Your task to perform on an android device: Clear the cart on newegg. Search for "bose soundlink mini" on newegg, select the first entry, add it to the cart, then select checkout. Image 0: 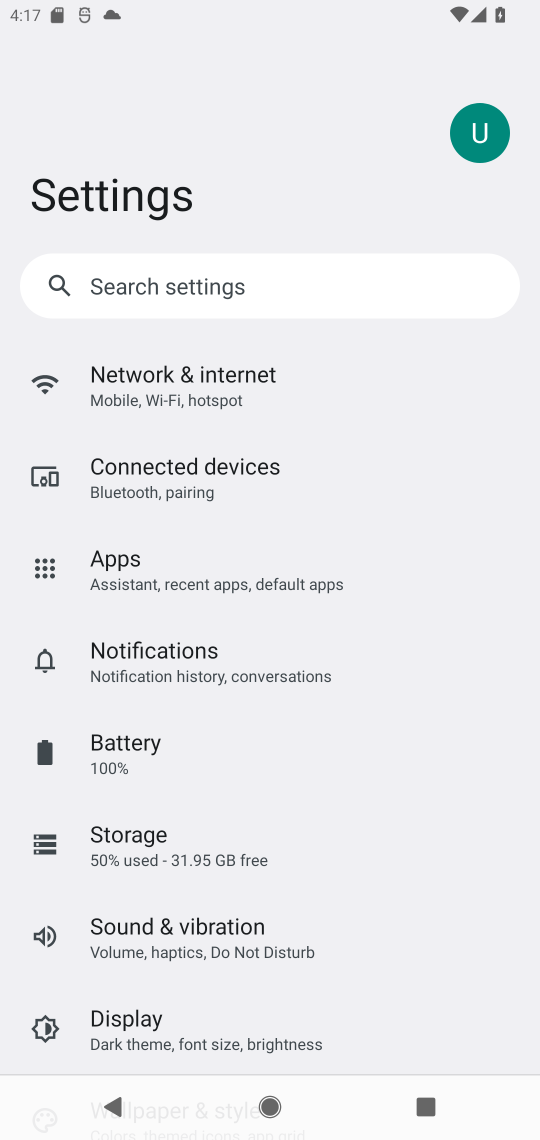
Step 0: press home button
Your task to perform on an android device: Clear the cart on newegg. Search for "bose soundlink mini" on newegg, select the first entry, add it to the cart, then select checkout. Image 1: 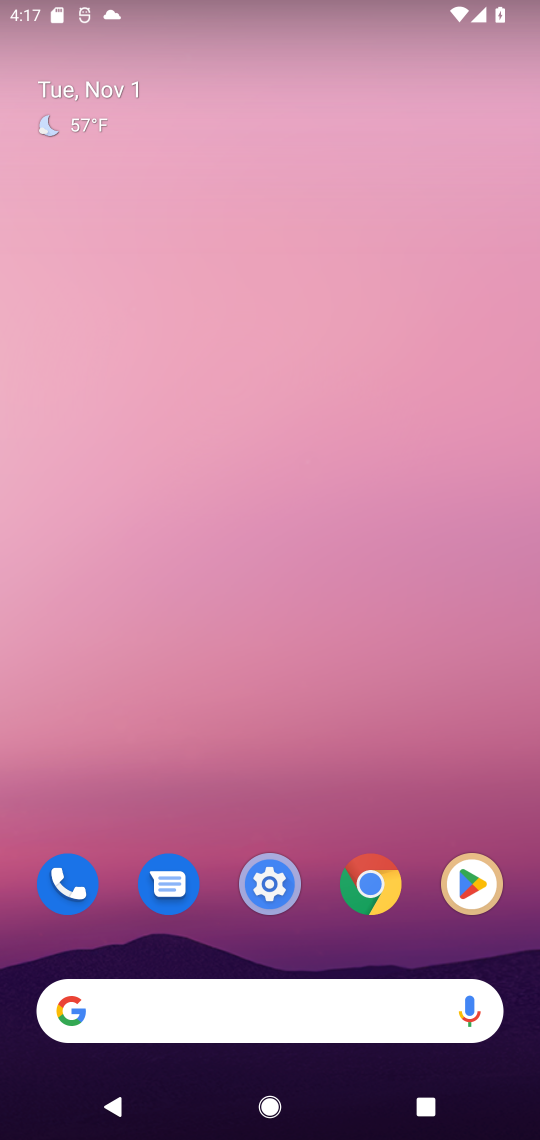
Step 1: click (105, 1010)
Your task to perform on an android device: Clear the cart on newegg. Search for "bose soundlink mini" on newegg, select the first entry, add it to the cart, then select checkout. Image 2: 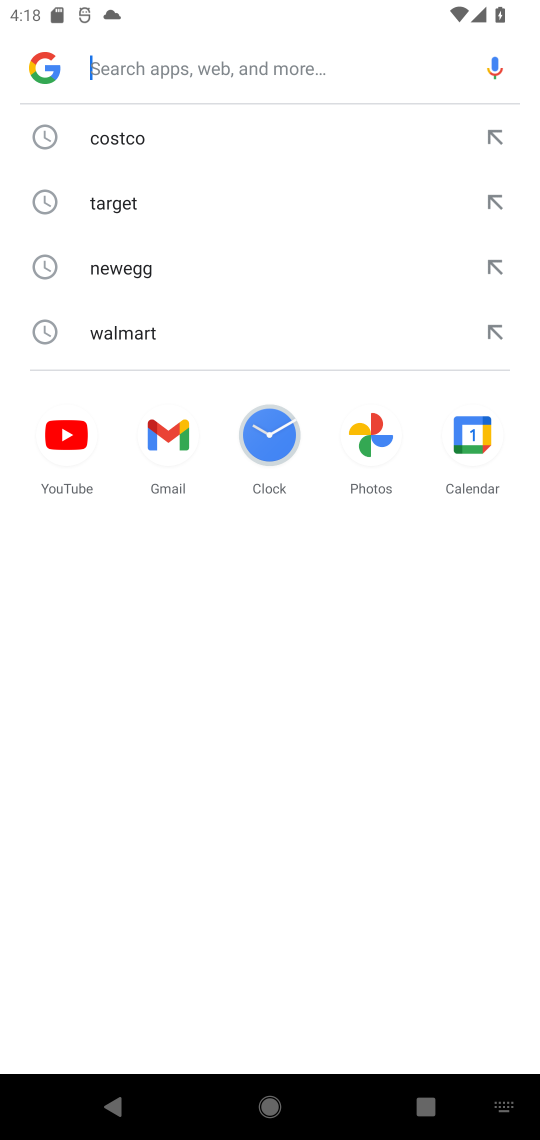
Step 2: type "newegg,"
Your task to perform on an android device: Clear the cart on newegg. Search for "bose soundlink mini" on newegg, select the first entry, add it to the cart, then select checkout. Image 3: 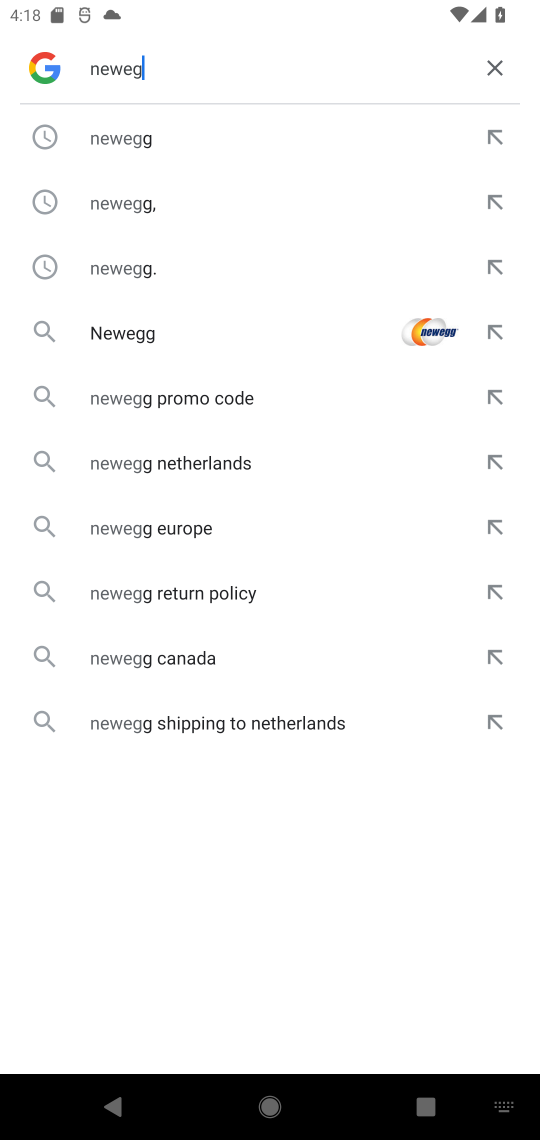
Step 3: press enter
Your task to perform on an android device: Clear the cart on newegg. Search for "bose soundlink mini" on newegg, select the first entry, add it to the cart, then select checkout. Image 4: 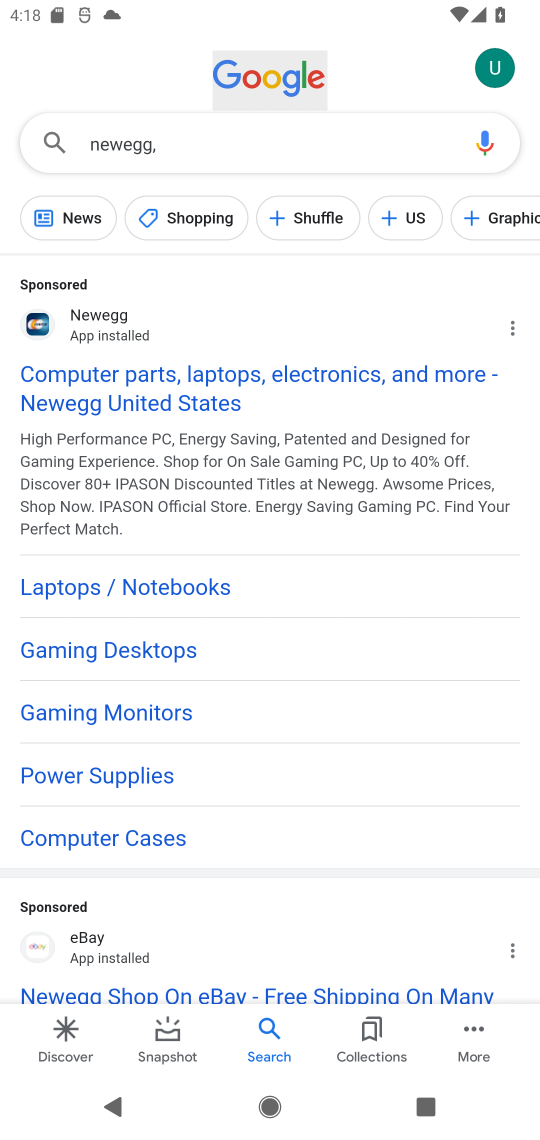
Step 4: drag from (255, 878) to (262, 428)
Your task to perform on an android device: Clear the cart on newegg. Search for "bose soundlink mini" on newegg, select the first entry, add it to the cart, then select checkout. Image 5: 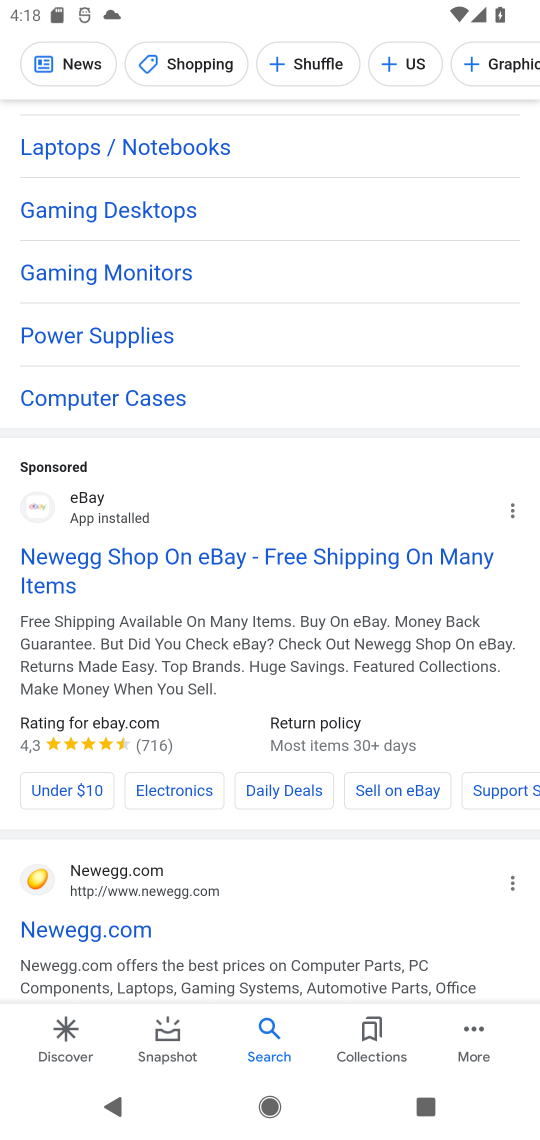
Step 5: click (74, 935)
Your task to perform on an android device: Clear the cart on newegg. Search for "bose soundlink mini" on newegg, select the first entry, add it to the cart, then select checkout. Image 6: 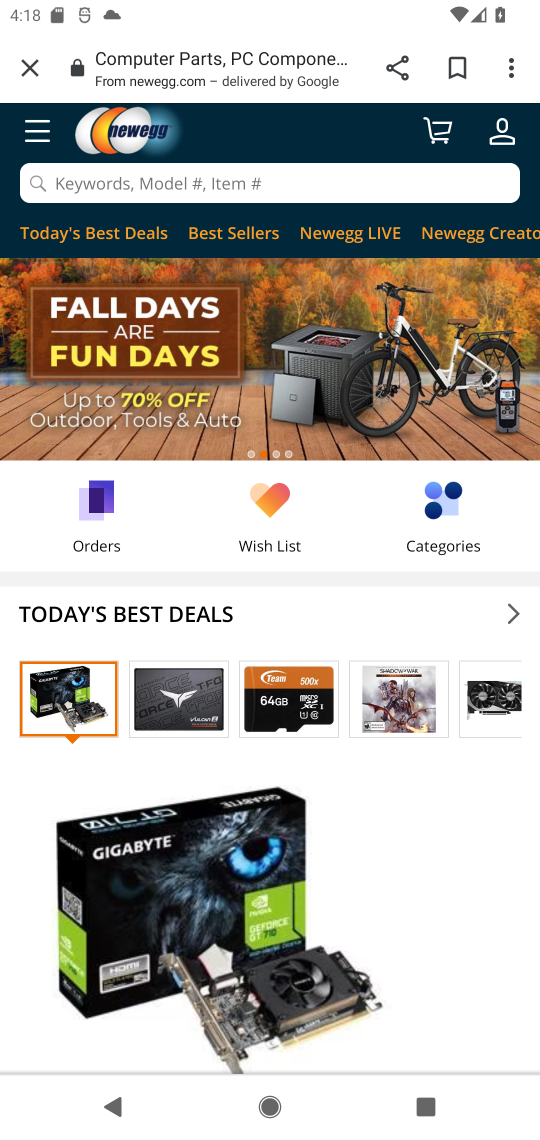
Step 6: click (79, 184)
Your task to perform on an android device: Clear the cart on newegg. Search for "bose soundlink mini" on newegg, select the first entry, add it to the cart, then select checkout. Image 7: 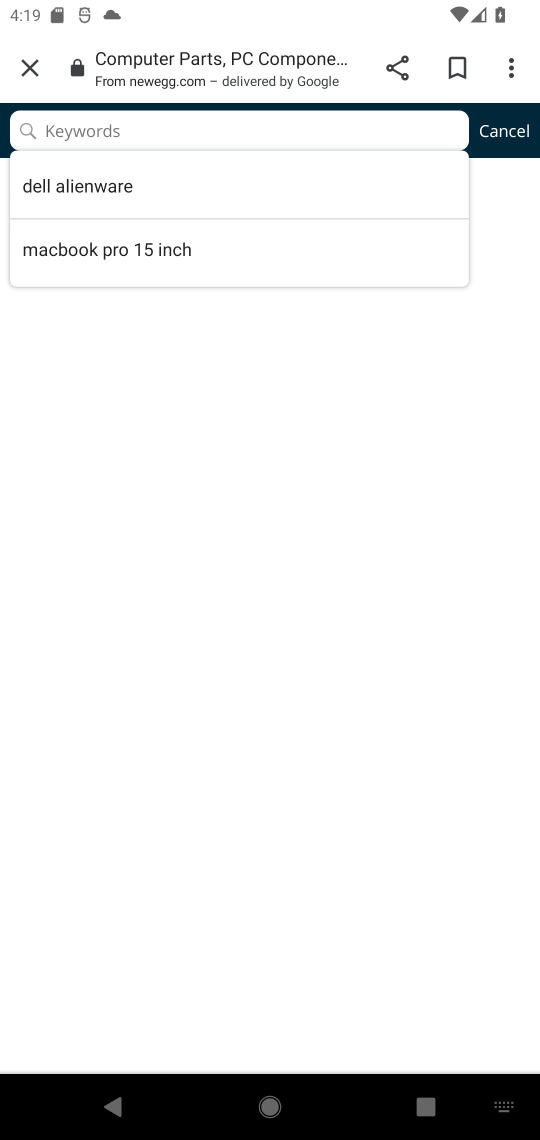
Step 7: type "bose soundlink mini"
Your task to perform on an android device: Clear the cart on newegg. Search for "bose soundlink mini" on newegg, select the first entry, add it to the cart, then select checkout. Image 8: 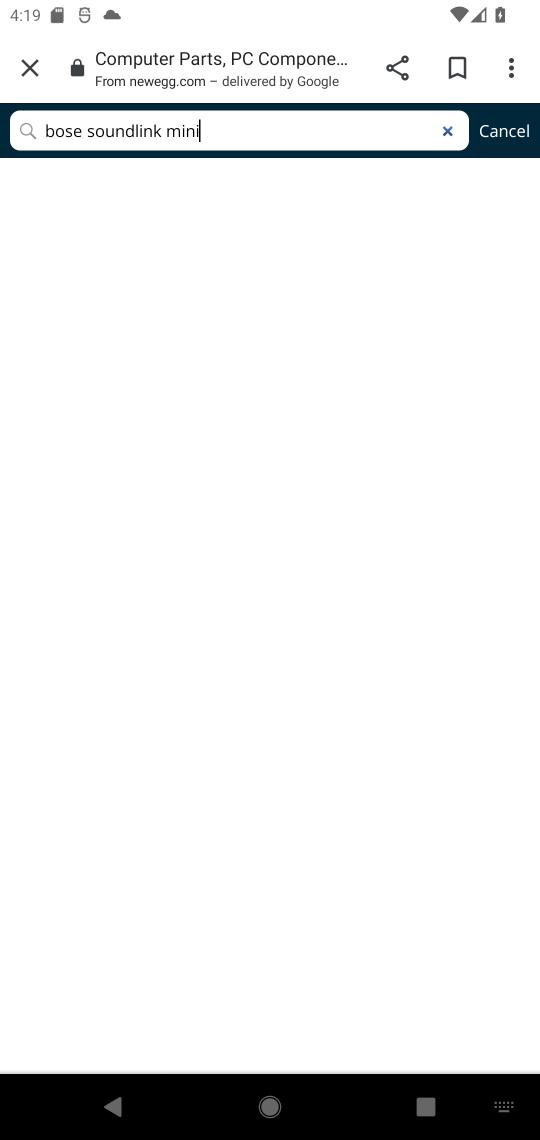
Step 8: click (24, 132)
Your task to perform on an android device: Clear the cart on newegg. Search for "bose soundlink mini" on newegg, select the first entry, add it to the cart, then select checkout. Image 9: 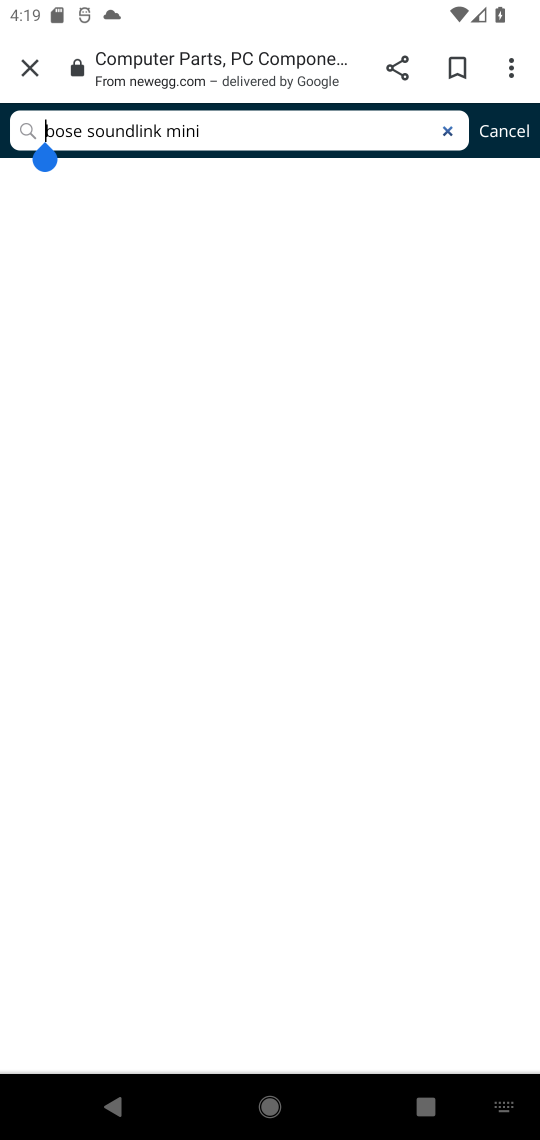
Step 9: press enter
Your task to perform on an android device: Clear the cart on newegg. Search for "bose soundlink mini" on newegg, select the first entry, add it to the cart, then select checkout. Image 10: 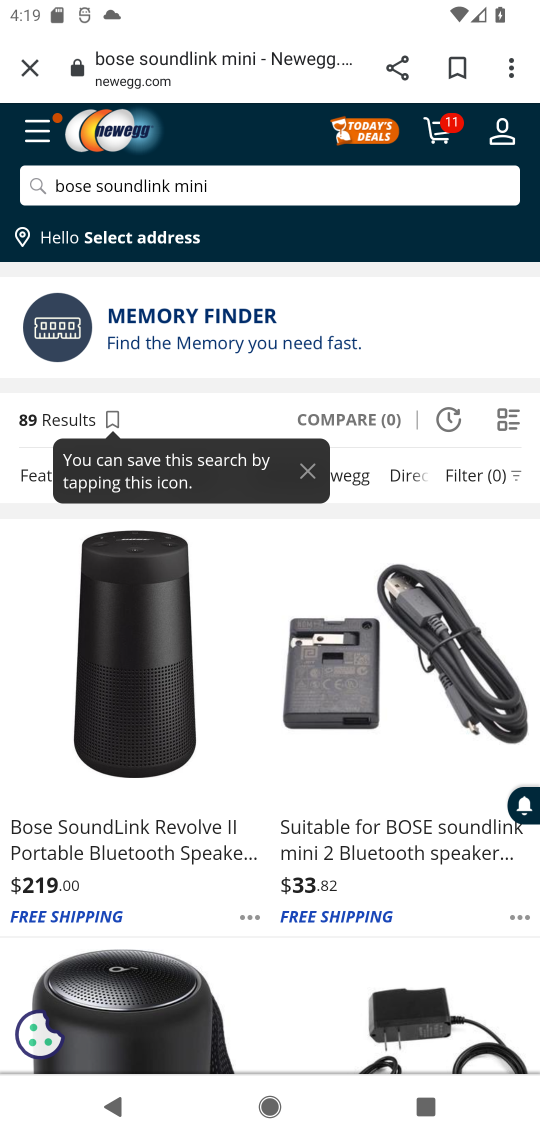
Step 10: drag from (203, 916) to (236, 583)
Your task to perform on an android device: Clear the cart on newegg. Search for "bose soundlink mini" on newegg, select the first entry, add it to the cart, then select checkout. Image 11: 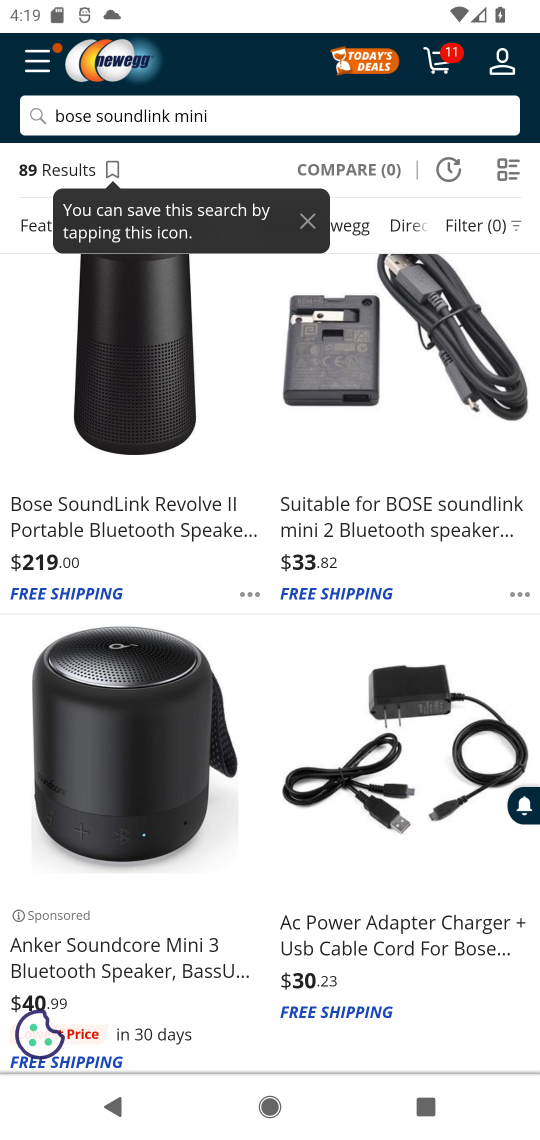
Step 11: click (370, 519)
Your task to perform on an android device: Clear the cart on newegg. Search for "bose soundlink mini" on newegg, select the first entry, add it to the cart, then select checkout. Image 12: 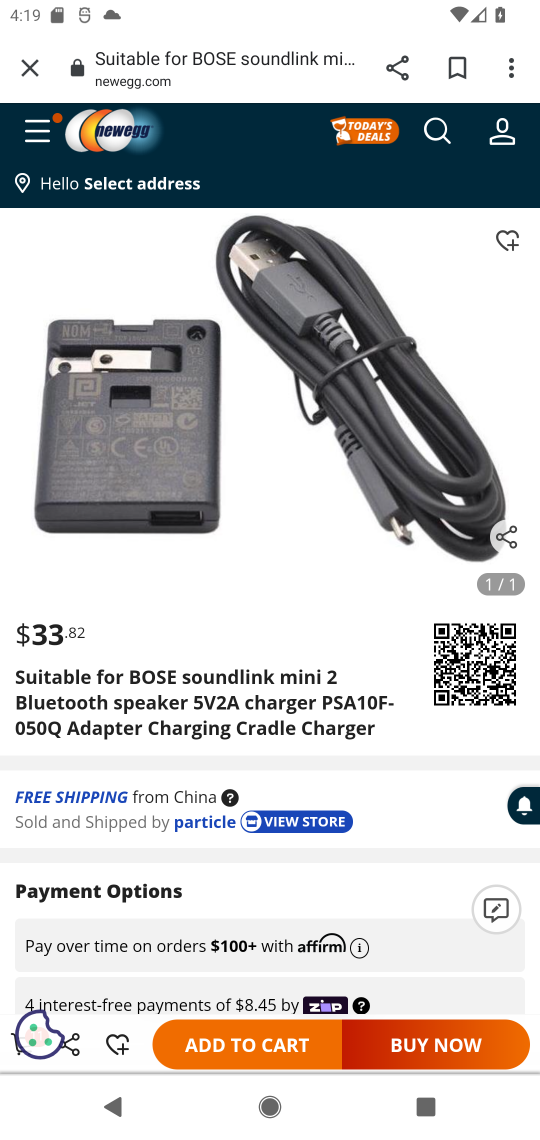
Step 12: click (224, 1046)
Your task to perform on an android device: Clear the cart on newegg. Search for "bose soundlink mini" on newegg, select the first entry, add it to the cart, then select checkout. Image 13: 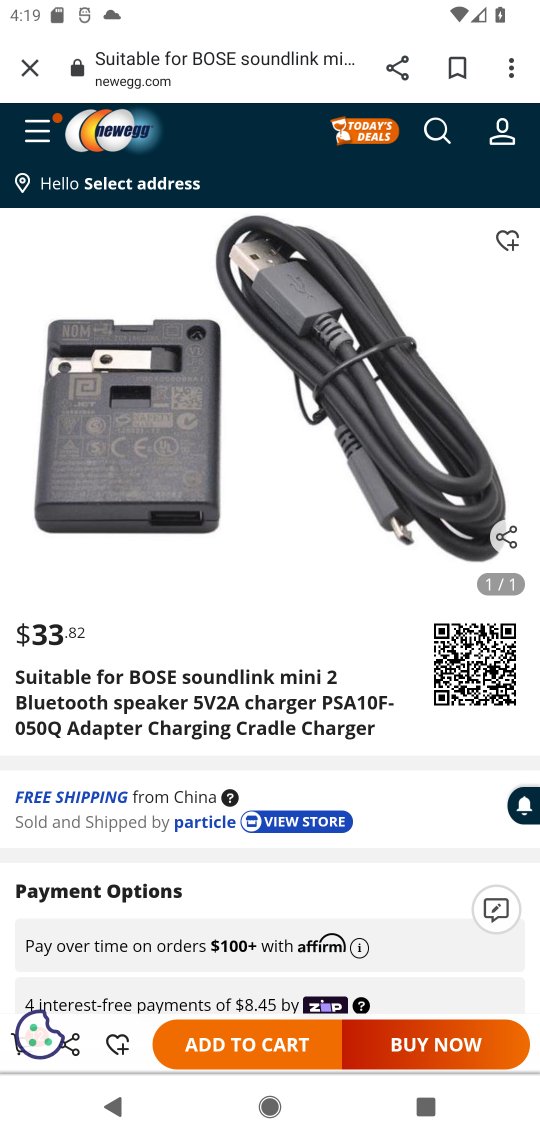
Step 13: drag from (246, 607) to (269, 485)
Your task to perform on an android device: Clear the cart on newegg. Search for "bose soundlink mini" on newegg, select the first entry, add it to the cart, then select checkout. Image 14: 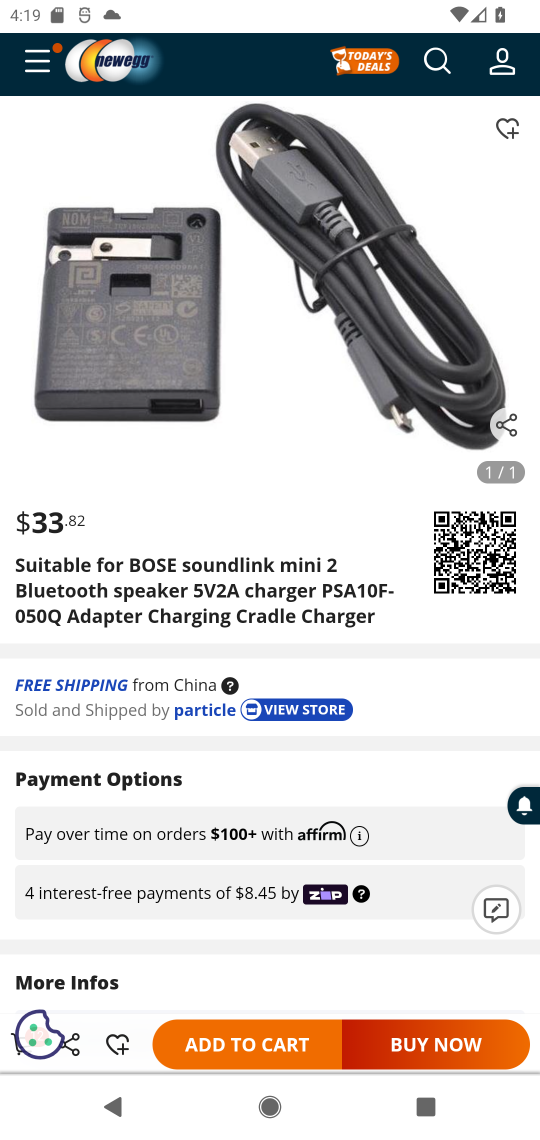
Step 14: drag from (141, 871) to (175, 499)
Your task to perform on an android device: Clear the cart on newegg. Search for "bose soundlink mini" on newegg, select the first entry, add it to the cart, then select checkout. Image 15: 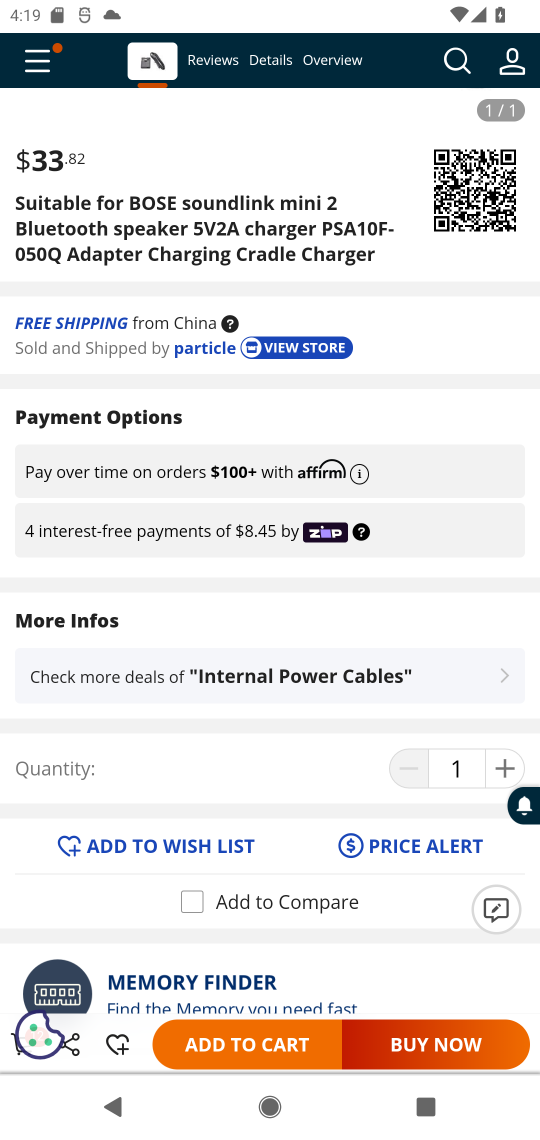
Step 15: drag from (174, 934) to (206, 604)
Your task to perform on an android device: Clear the cart on newegg. Search for "bose soundlink mini" on newegg, select the first entry, add it to the cart, then select checkout. Image 16: 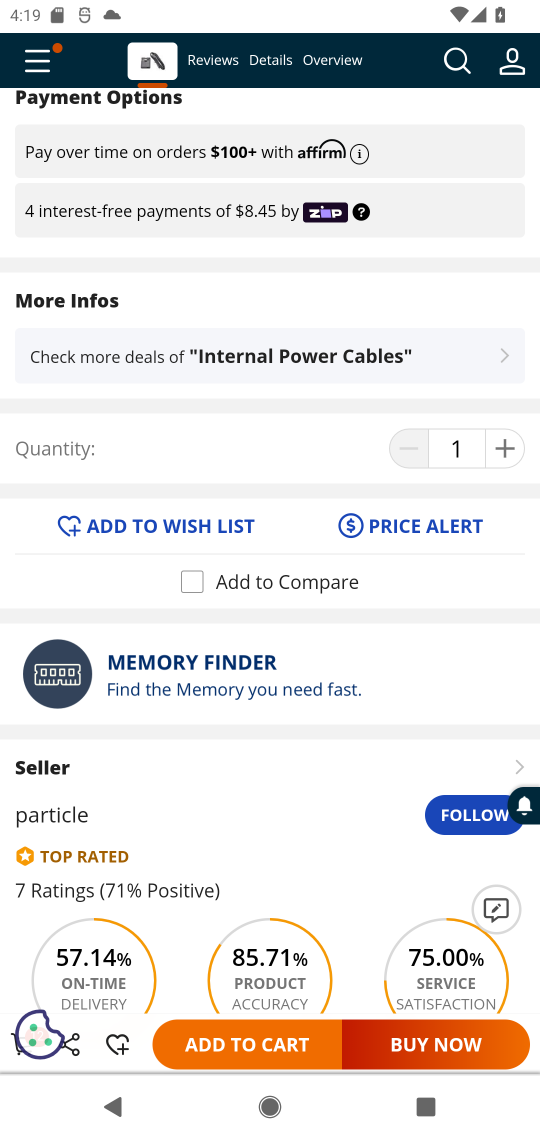
Step 16: drag from (117, 939) to (125, 463)
Your task to perform on an android device: Clear the cart on newegg. Search for "bose soundlink mini" on newegg, select the first entry, add it to the cart, then select checkout. Image 17: 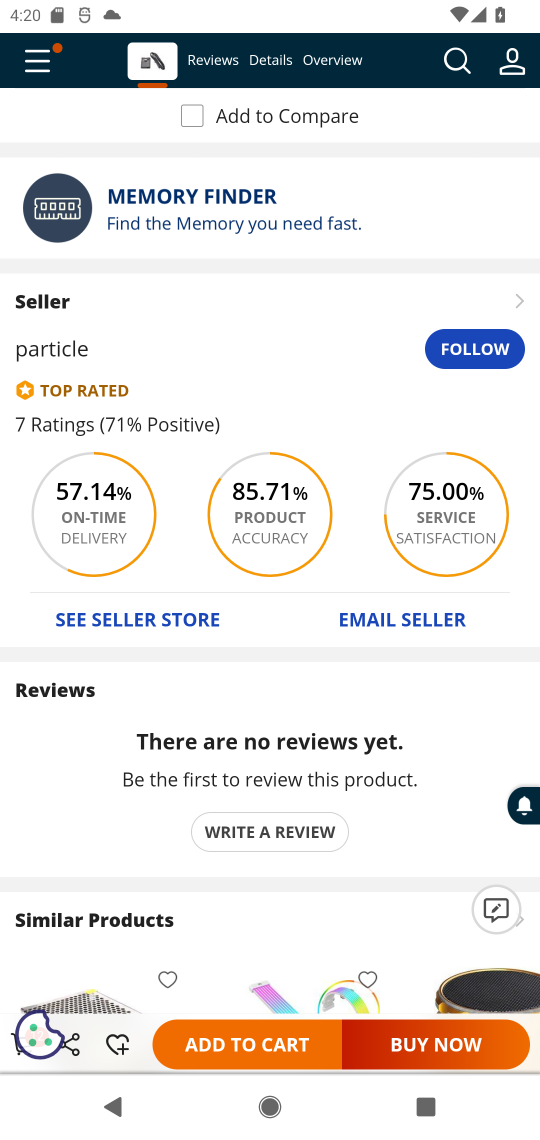
Step 17: drag from (269, 240) to (275, 915)
Your task to perform on an android device: Clear the cart on newegg. Search for "bose soundlink mini" on newegg, select the first entry, add it to the cart, then select checkout. Image 18: 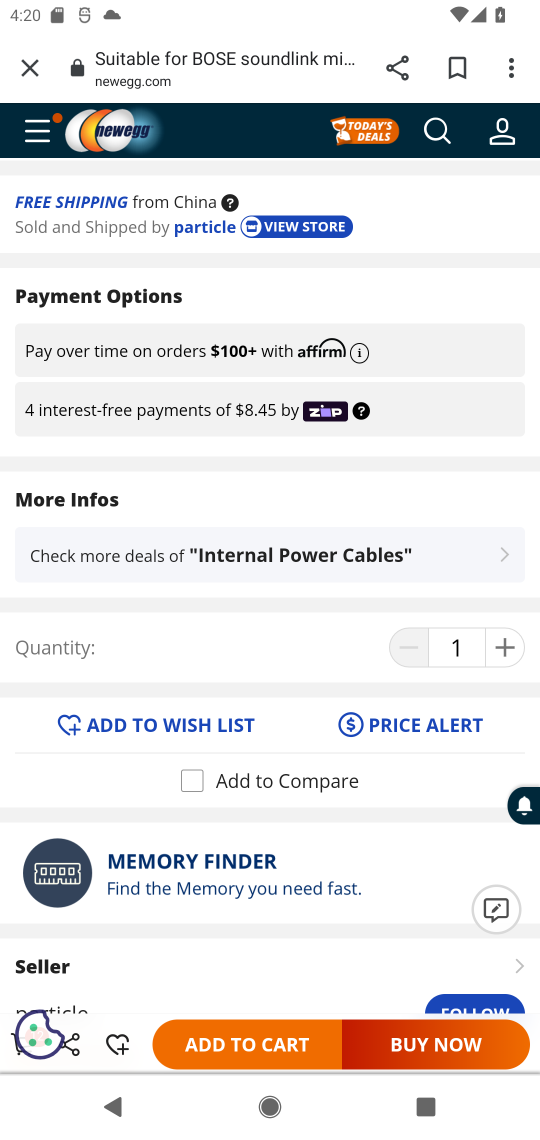
Step 18: drag from (282, 280) to (295, 889)
Your task to perform on an android device: Clear the cart on newegg. Search for "bose soundlink mini" on newegg, select the first entry, add it to the cart, then select checkout. Image 19: 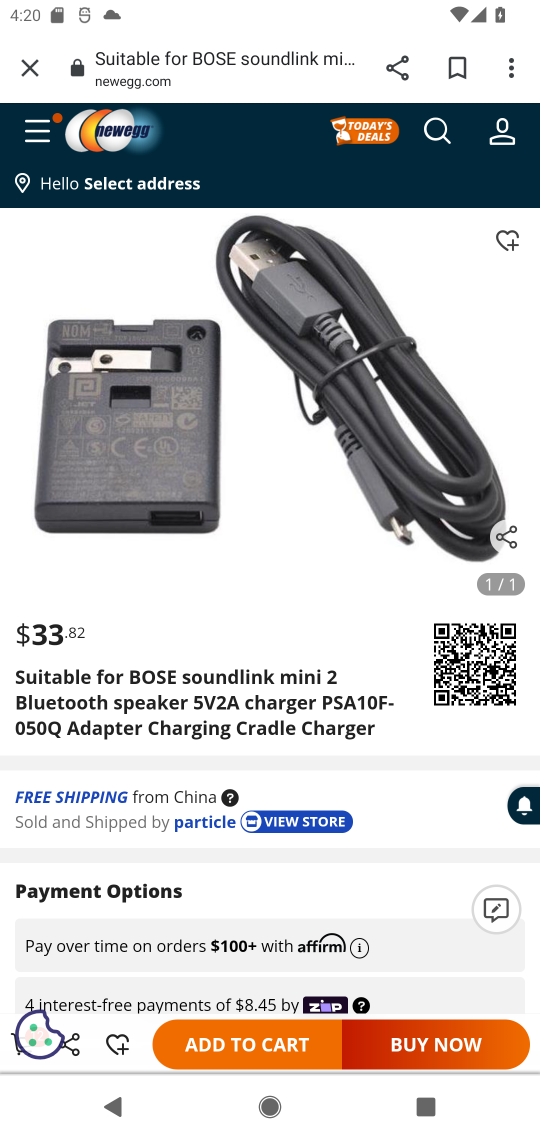
Step 19: drag from (272, 274) to (252, 832)
Your task to perform on an android device: Clear the cart on newegg. Search for "bose soundlink mini" on newegg, select the first entry, add it to the cart, then select checkout. Image 20: 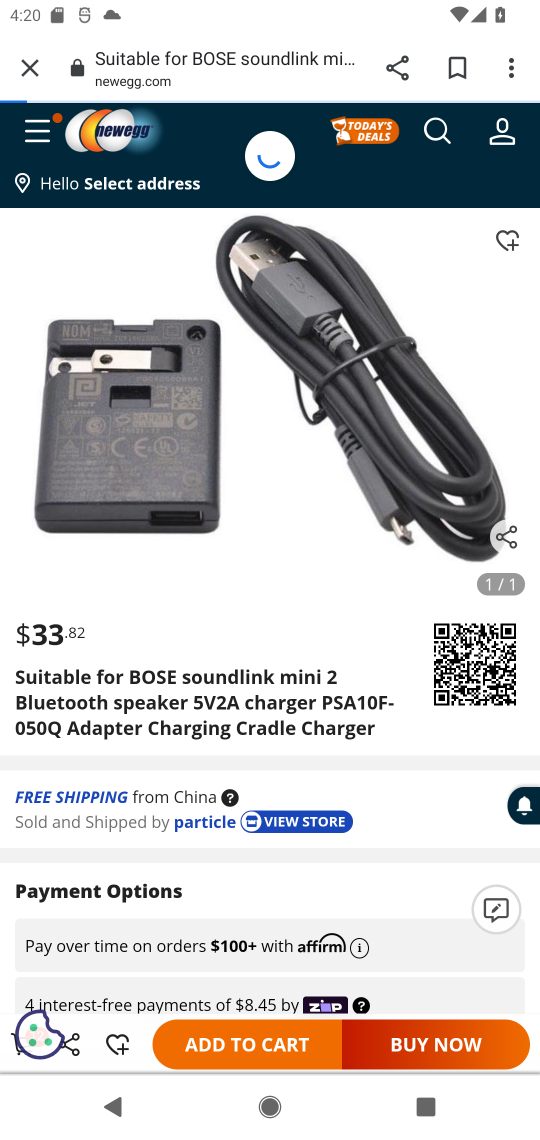
Step 20: drag from (271, 246) to (270, 707)
Your task to perform on an android device: Clear the cart on newegg. Search for "bose soundlink mini" on newegg, select the first entry, add it to the cart, then select checkout. Image 21: 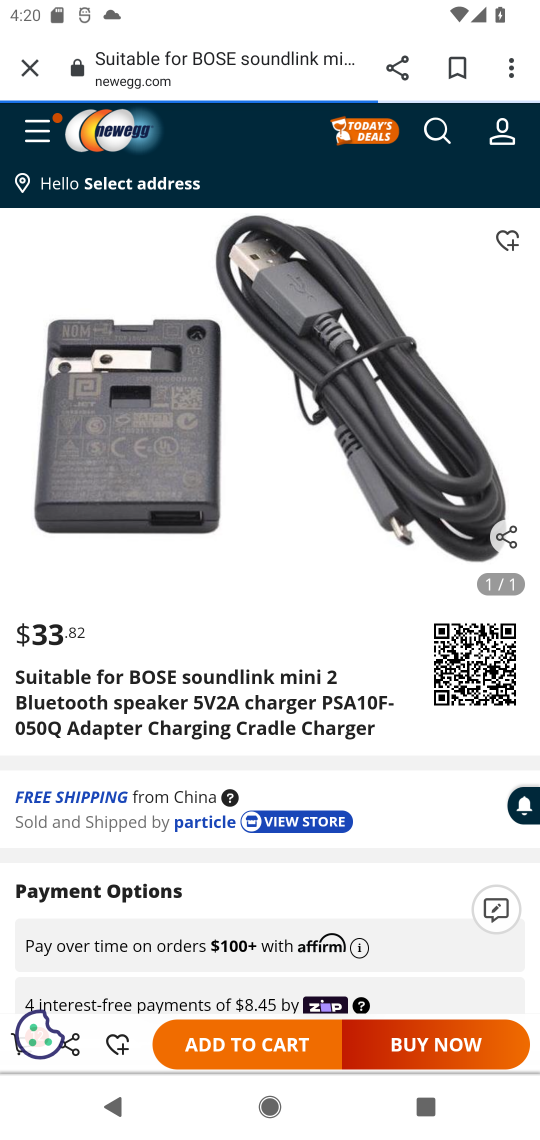
Step 21: click (43, 135)
Your task to perform on an android device: Clear the cart on newegg. Search for "bose soundlink mini" on newegg, select the first entry, add it to the cart, then select checkout. Image 22: 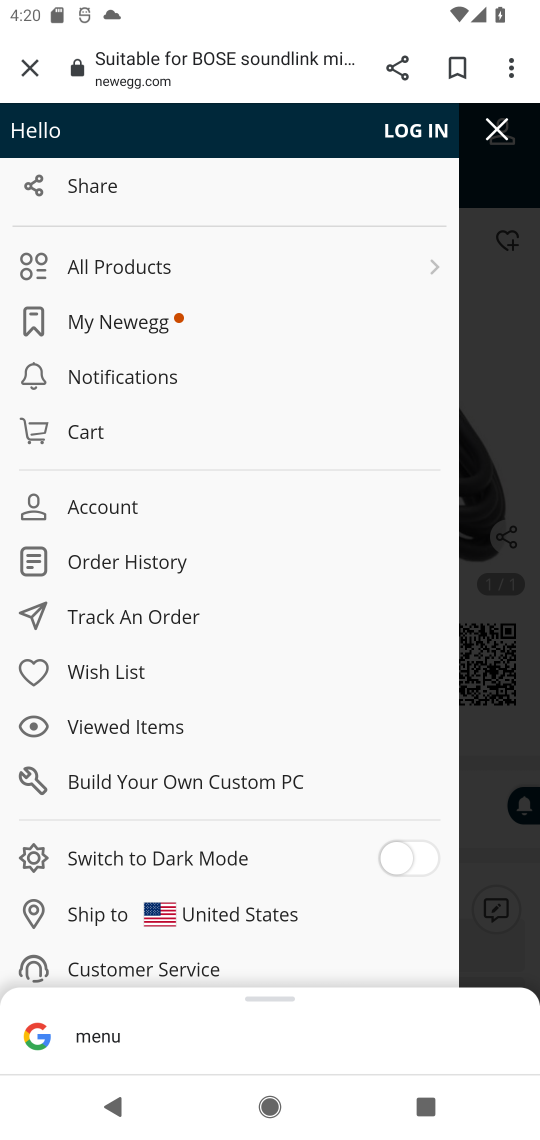
Step 22: drag from (279, 718) to (263, 445)
Your task to perform on an android device: Clear the cart on newegg. Search for "bose soundlink mini" on newegg, select the first entry, add it to the cart, then select checkout. Image 23: 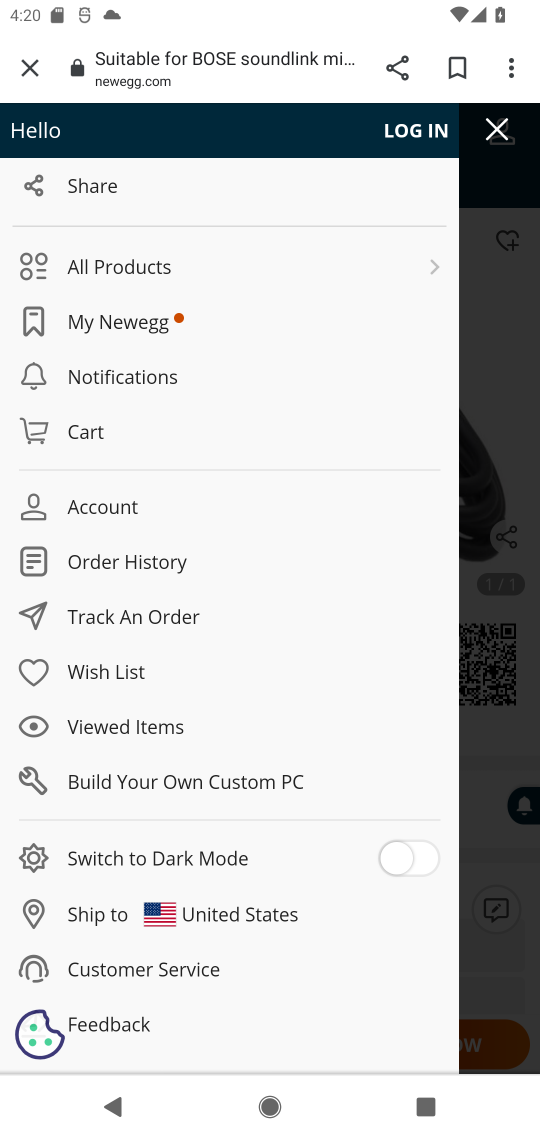
Step 23: drag from (293, 337) to (286, 694)
Your task to perform on an android device: Clear the cart on newegg. Search for "bose soundlink mini" on newegg, select the first entry, add it to the cart, then select checkout. Image 24: 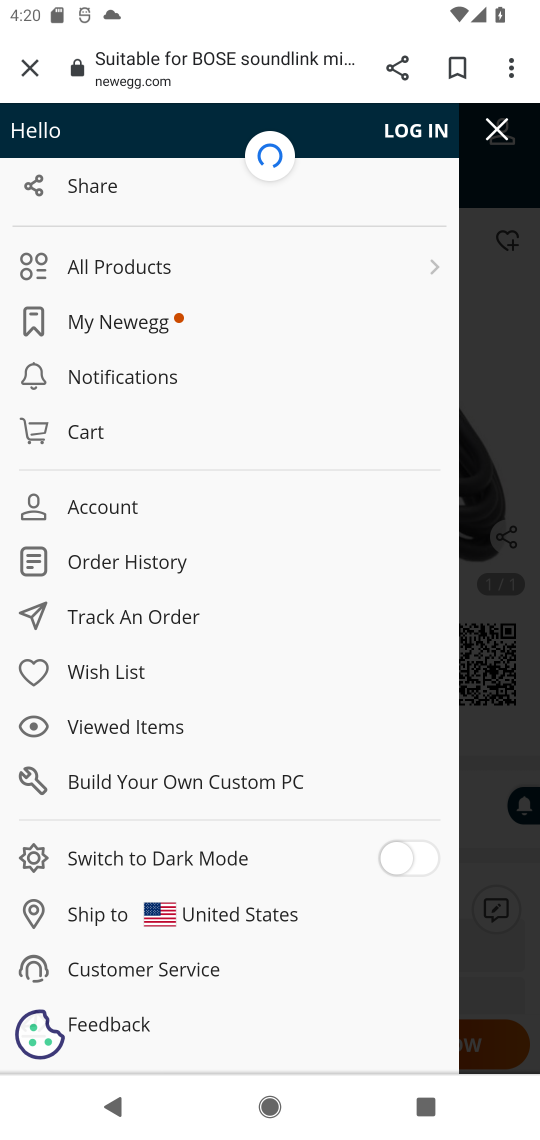
Step 24: click (69, 427)
Your task to perform on an android device: Clear the cart on newegg. Search for "bose soundlink mini" on newegg, select the first entry, add it to the cart, then select checkout. Image 25: 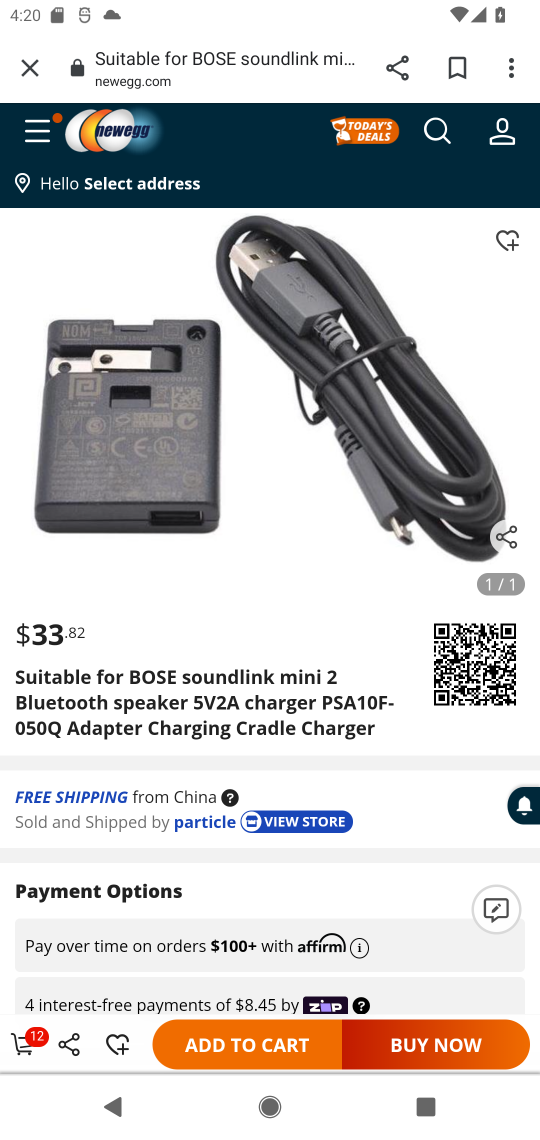
Step 25: drag from (194, 789) to (240, 471)
Your task to perform on an android device: Clear the cart on newegg. Search for "bose soundlink mini" on newegg, select the first entry, add it to the cart, then select checkout. Image 26: 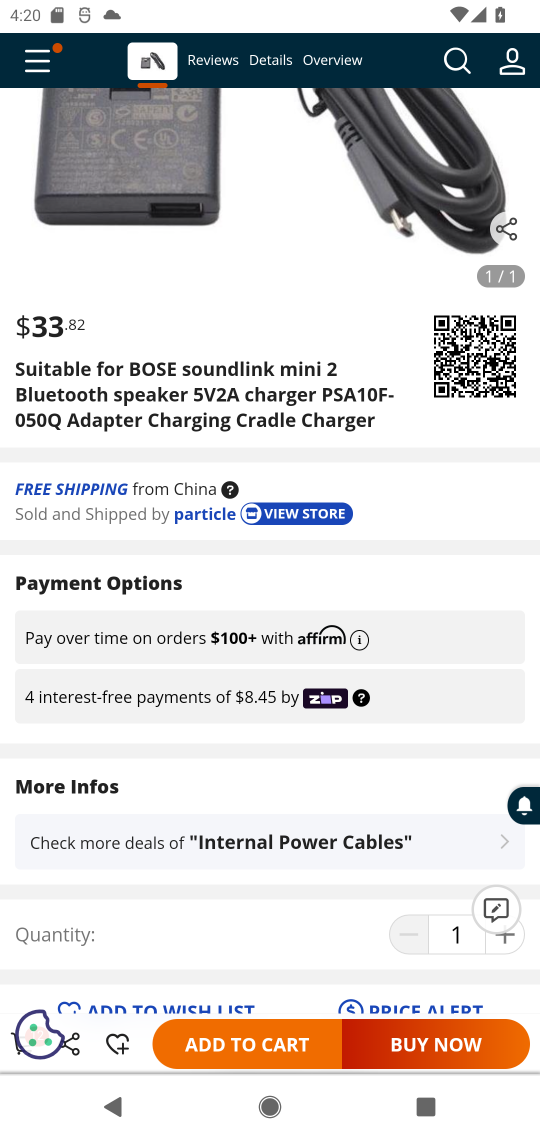
Step 26: drag from (212, 778) to (233, 342)
Your task to perform on an android device: Clear the cart on newegg. Search for "bose soundlink mini" on newegg, select the first entry, add it to the cart, then select checkout. Image 27: 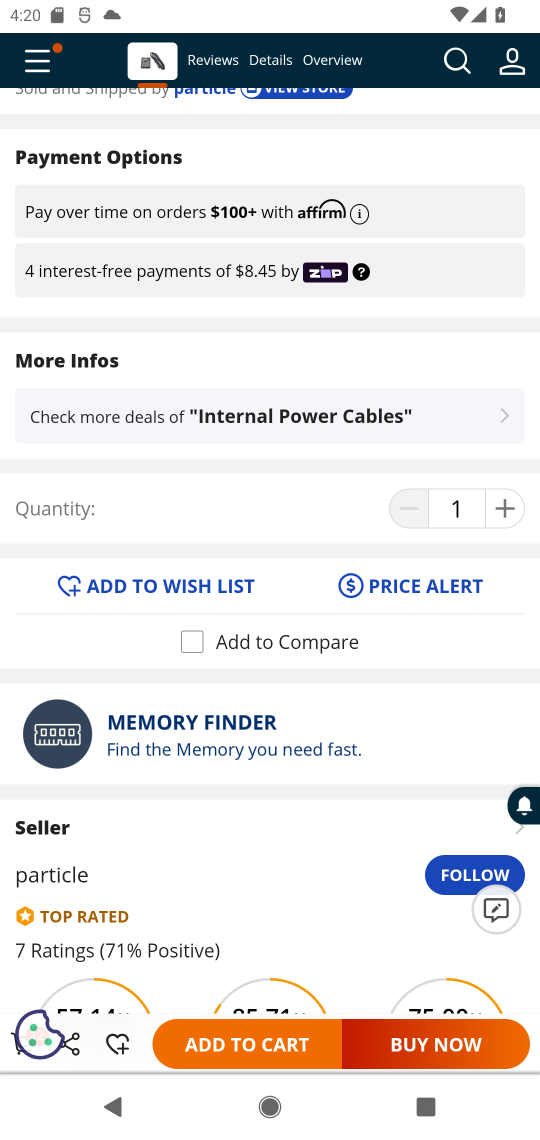
Step 27: drag from (231, 809) to (243, 423)
Your task to perform on an android device: Clear the cart on newegg. Search for "bose soundlink mini" on newegg, select the first entry, add it to the cart, then select checkout. Image 28: 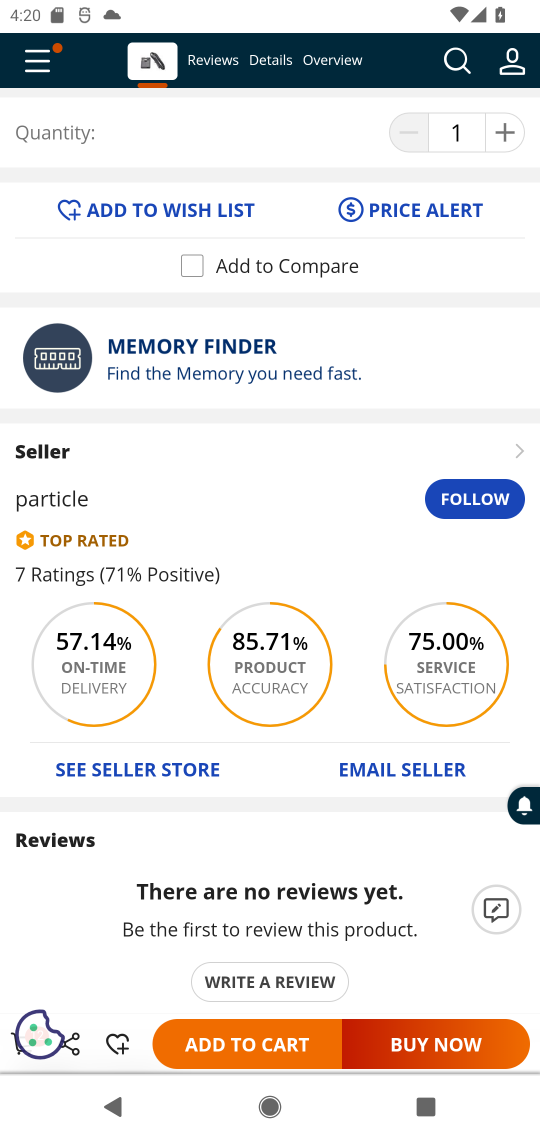
Step 28: click (10, 1054)
Your task to perform on an android device: Clear the cart on newegg. Search for "bose soundlink mini" on newegg, select the first entry, add it to the cart, then select checkout. Image 29: 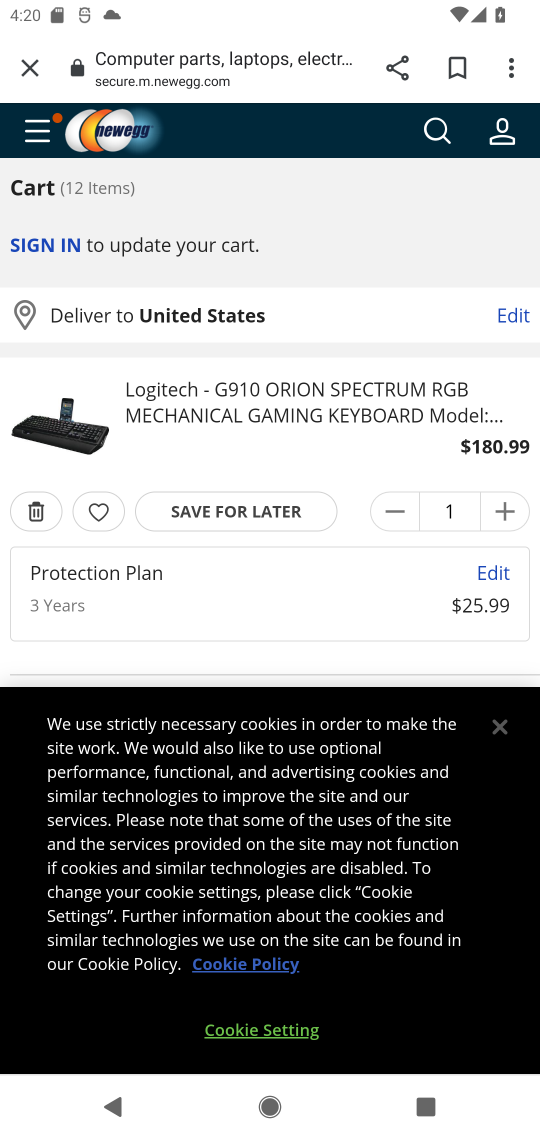
Step 29: click (269, 989)
Your task to perform on an android device: Clear the cart on newegg. Search for "bose soundlink mini" on newegg, select the first entry, add it to the cart, then select checkout. Image 30: 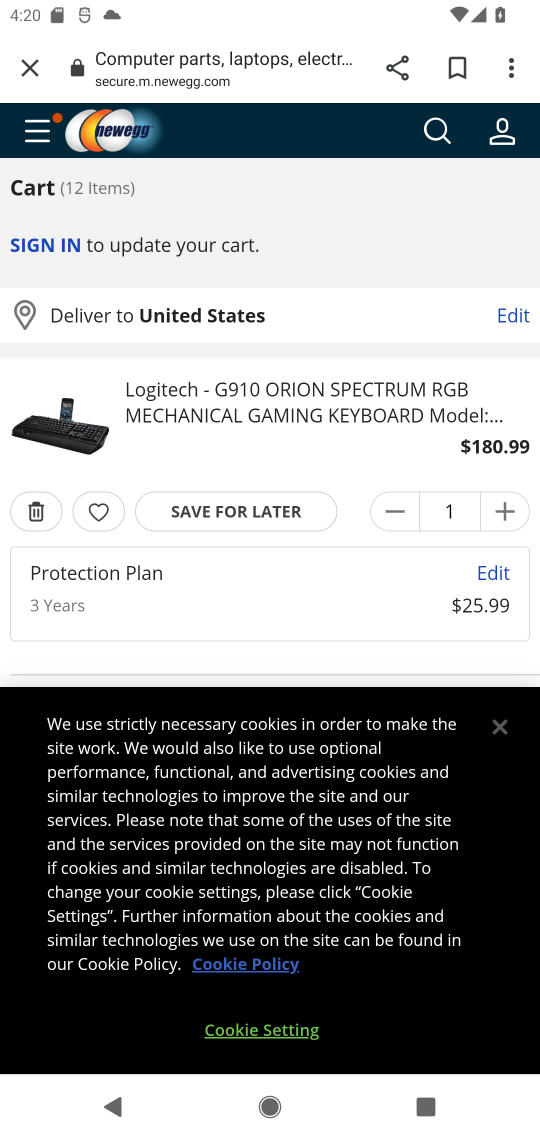
Step 30: click (499, 726)
Your task to perform on an android device: Clear the cart on newegg. Search for "bose soundlink mini" on newegg, select the first entry, add it to the cart, then select checkout. Image 31: 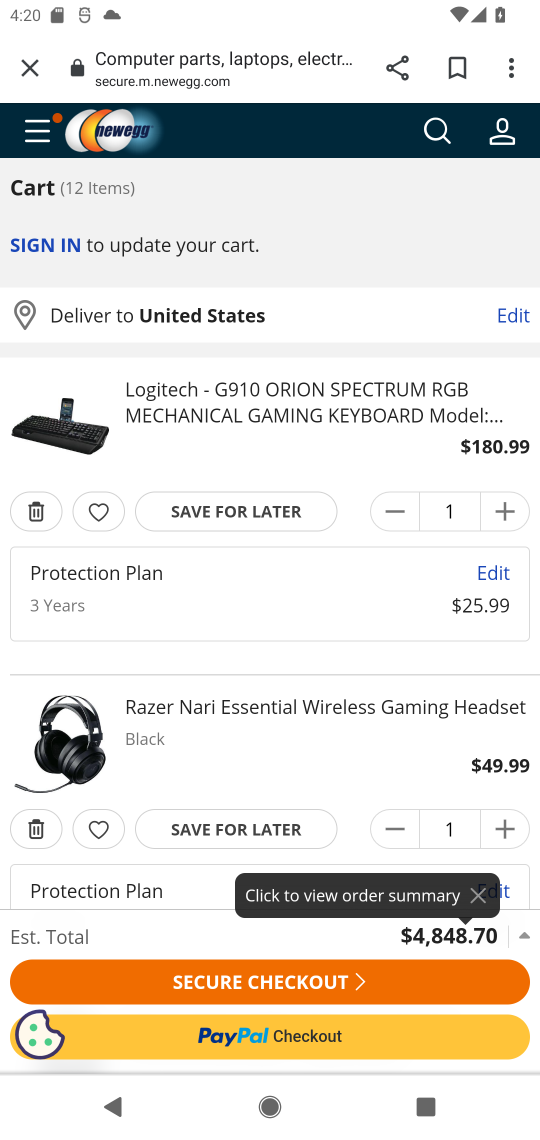
Step 31: click (284, 982)
Your task to perform on an android device: Clear the cart on newegg. Search for "bose soundlink mini" on newegg, select the first entry, add it to the cart, then select checkout. Image 32: 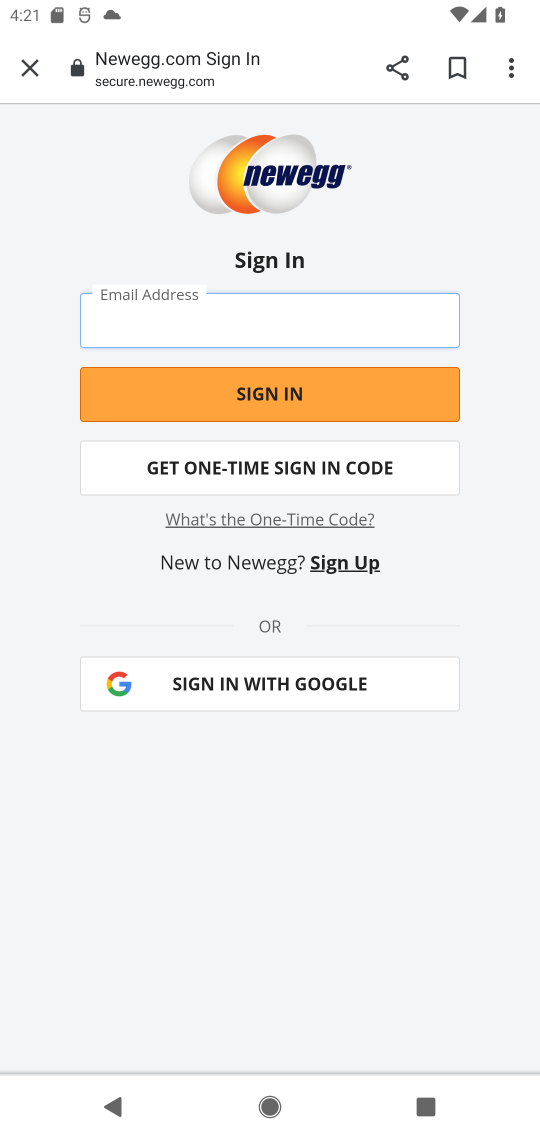
Step 32: task complete